Your task to perform on an android device: turn vacation reply on in the gmail app Image 0: 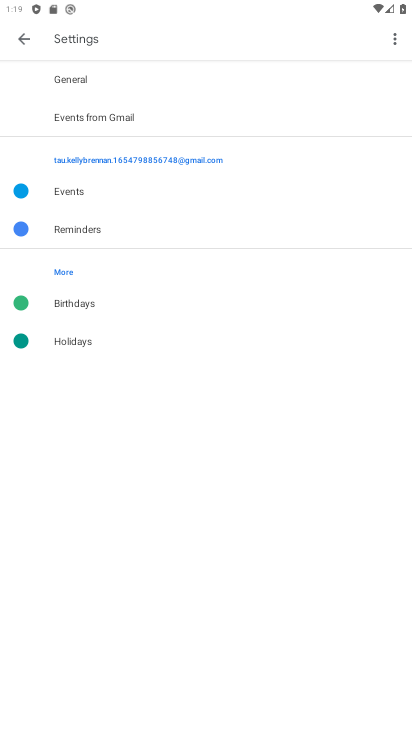
Step 0: press home button
Your task to perform on an android device: turn vacation reply on in the gmail app Image 1: 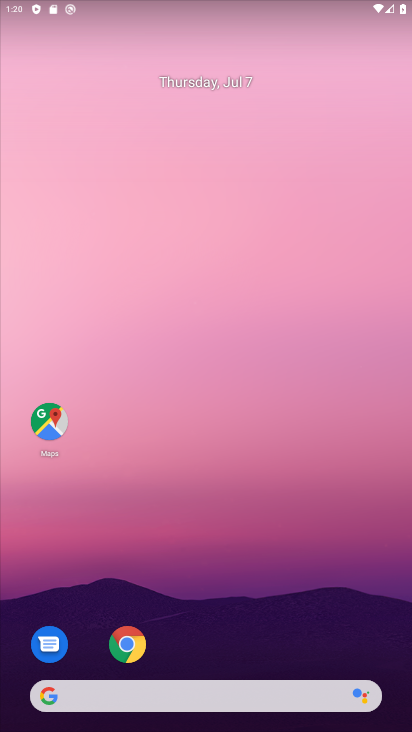
Step 1: drag from (185, 684) to (188, 179)
Your task to perform on an android device: turn vacation reply on in the gmail app Image 2: 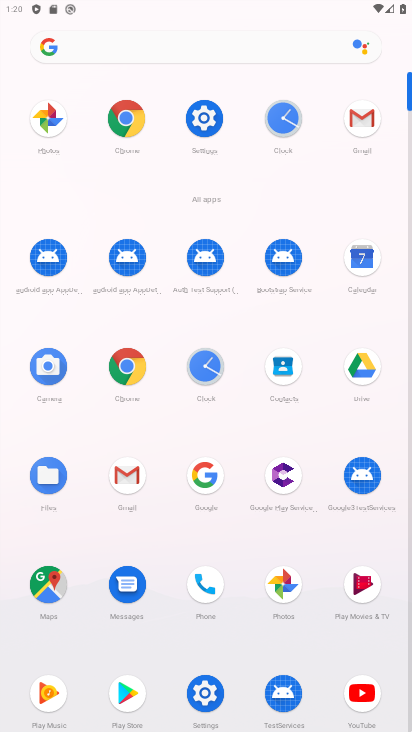
Step 2: click (363, 133)
Your task to perform on an android device: turn vacation reply on in the gmail app Image 3: 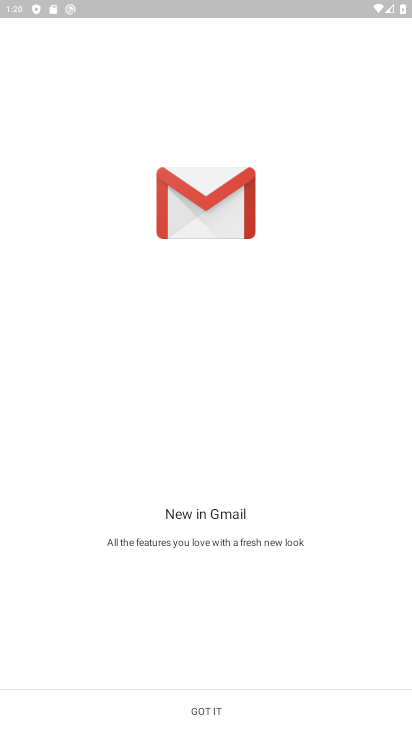
Step 3: click (195, 697)
Your task to perform on an android device: turn vacation reply on in the gmail app Image 4: 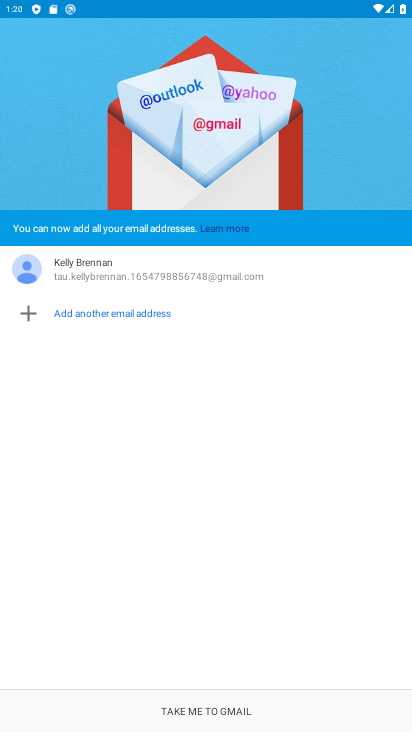
Step 4: click (207, 703)
Your task to perform on an android device: turn vacation reply on in the gmail app Image 5: 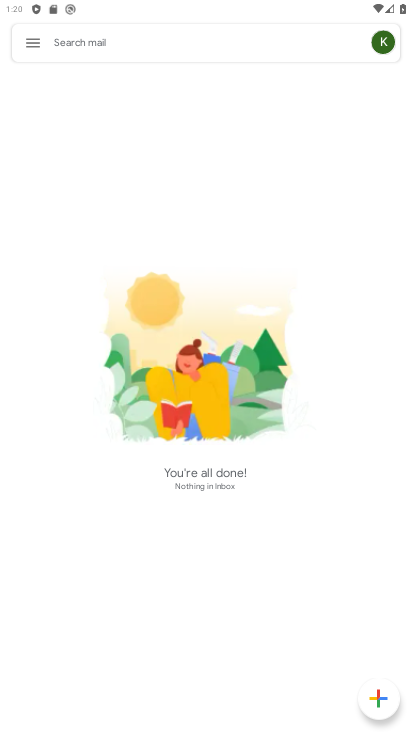
Step 5: click (44, 46)
Your task to perform on an android device: turn vacation reply on in the gmail app Image 6: 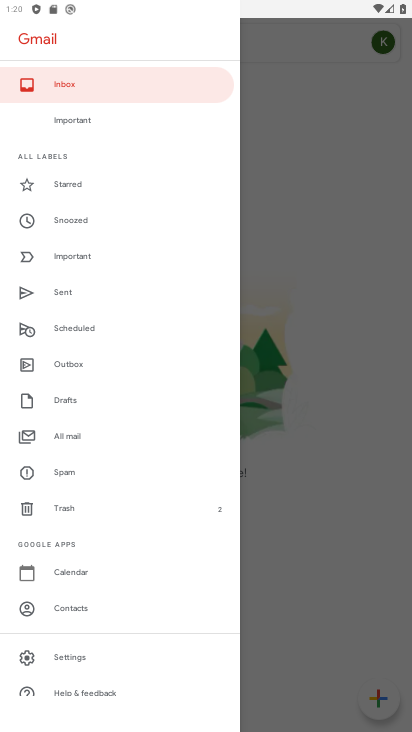
Step 6: click (76, 654)
Your task to perform on an android device: turn vacation reply on in the gmail app Image 7: 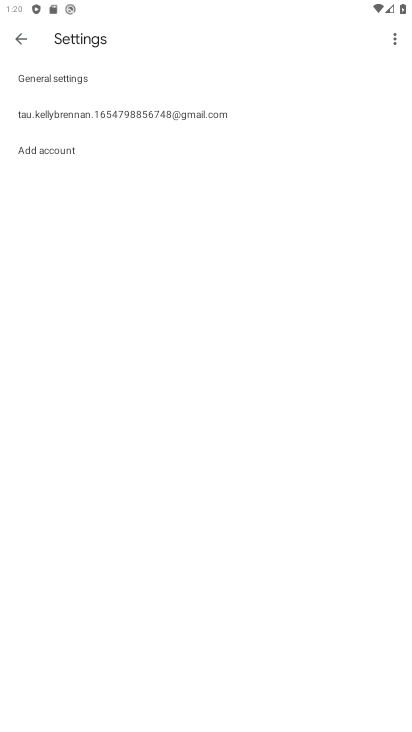
Step 7: click (118, 107)
Your task to perform on an android device: turn vacation reply on in the gmail app Image 8: 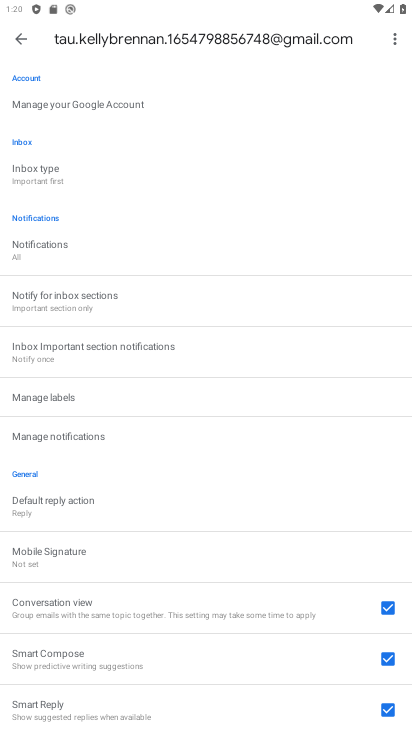
Step 8: drag from (129, 507) to (109, 27)
Your task to perform on an android device: turn vacation reply on in the gmail app Image 9: 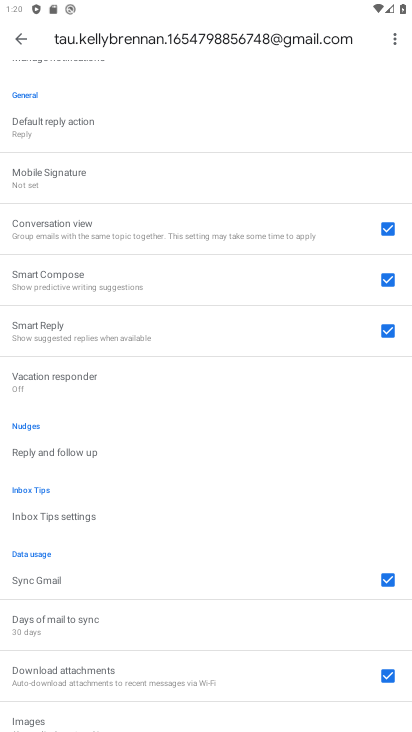
Step 9: drag from (157, 623) to (118, 379)
Your task to perform on an android device: turn vacation reply on in the gmail app Image 10: 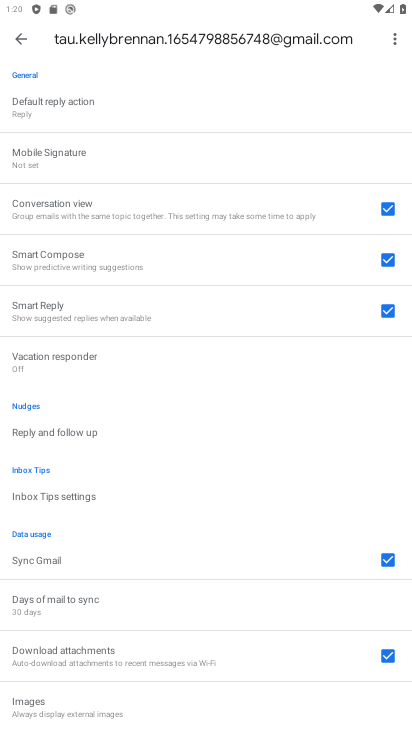
Step 10: drag from (180, 590) to (81, 128)
Your task to perform on an android device: turn vacation reply on in the gmail app Image 11: 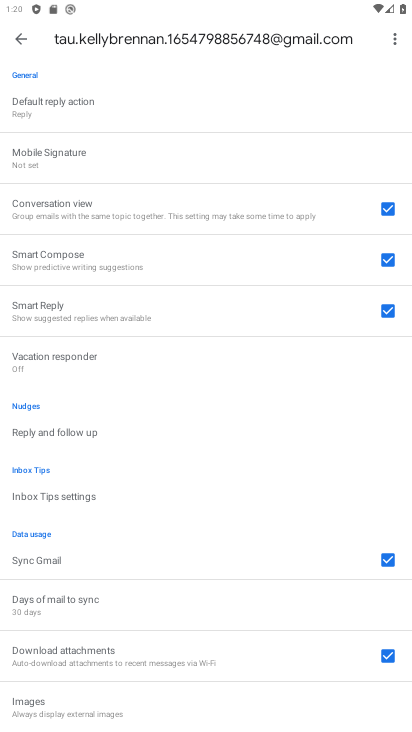
Step 11: drag from (155, 557) to (135, 119)
Your task to perform on an android device: turn vacation reply on in the gmail app Image 12: 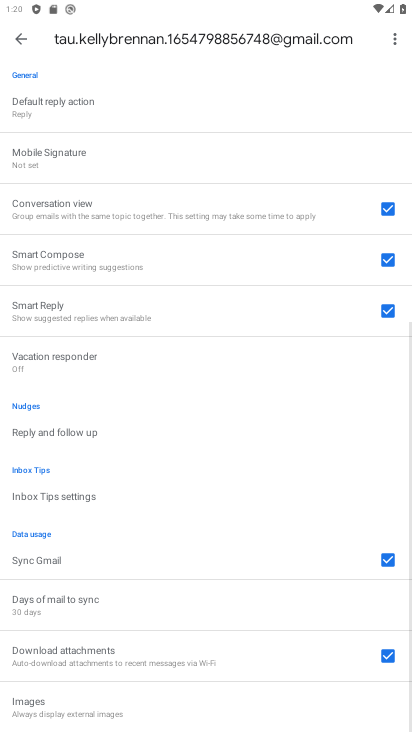
Step 12: drag from (176, 516) to (65, 6)
Your task to perform on an android device: turn vacation reply on in the gmail app Image 13: 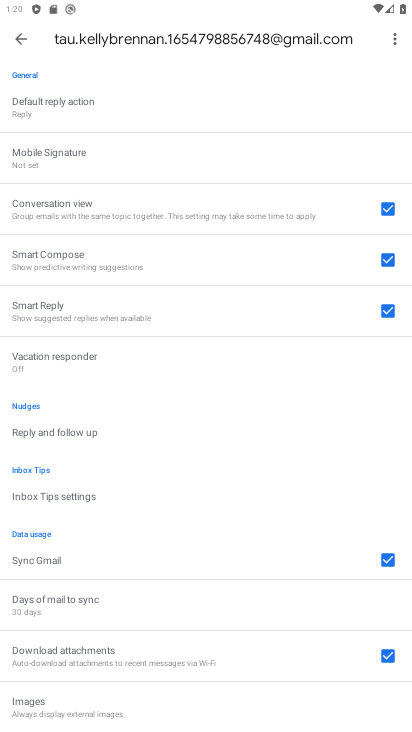
Step 13: drag from (180, 399) to (172, 587)
Your task to perform on an android device: turn vacation reply on in the gmail app Image 14: 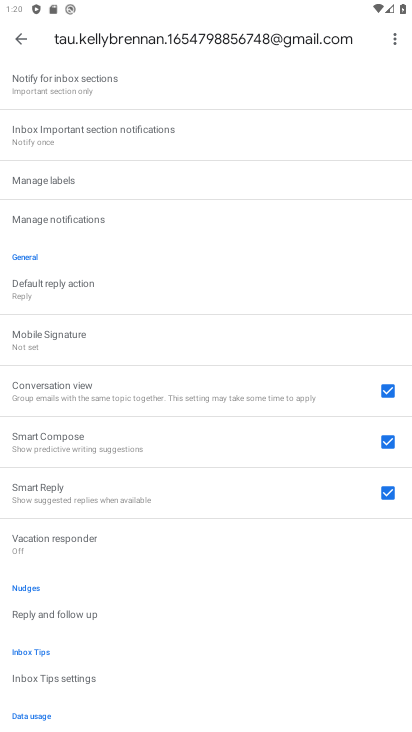
Step 14: click (74, 542)
Your task to perform on an android device: turn vacation reply on in the gmail app Image 15: 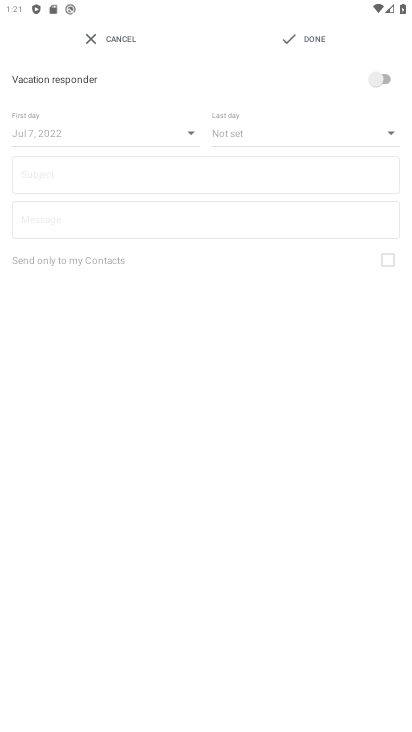
Step 15: click (380, 81)
Your task to perform on an android device: turn vacation reply on in the gmail app Image 16: 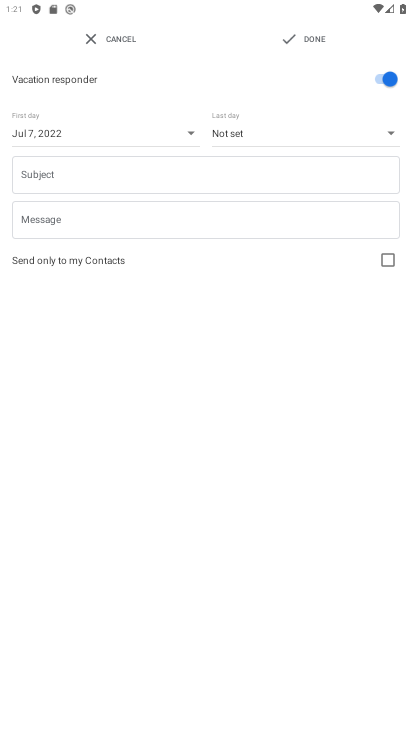
Step 16: task complete